Your task to perform on an android device: check data usage Image 0: 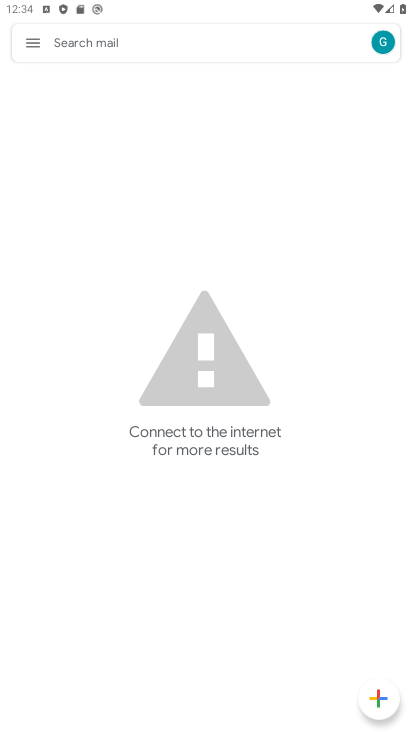
Step 0: press home button
Your task to perform on an android device: check data usage Image 1: 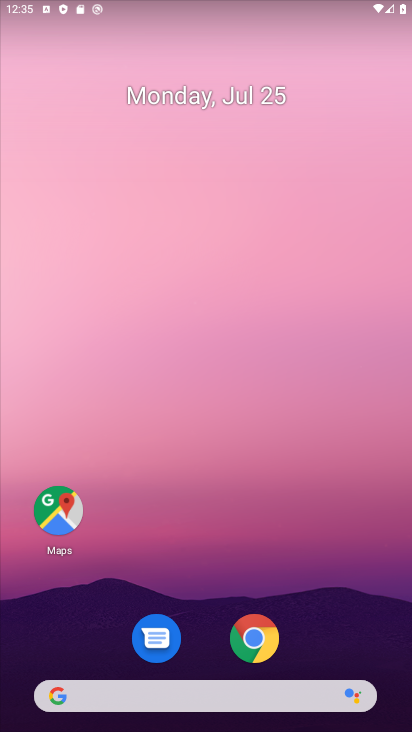
Step 1: drag from (211, 664) to (107, 113)
Your task to perform on an android device: check data usage Image 2: 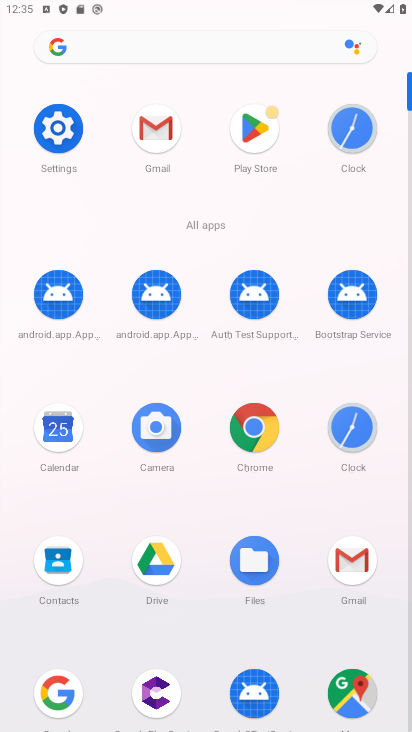
Step 2: click (62, 138)
Your task to perform on an android device: check data usage Image 3: 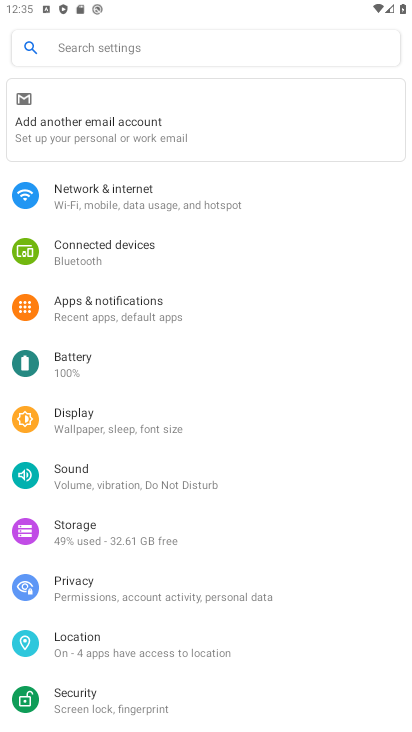
Step 3: click (213, 208)
Your task to perform on an android device: check data usage Image 4: 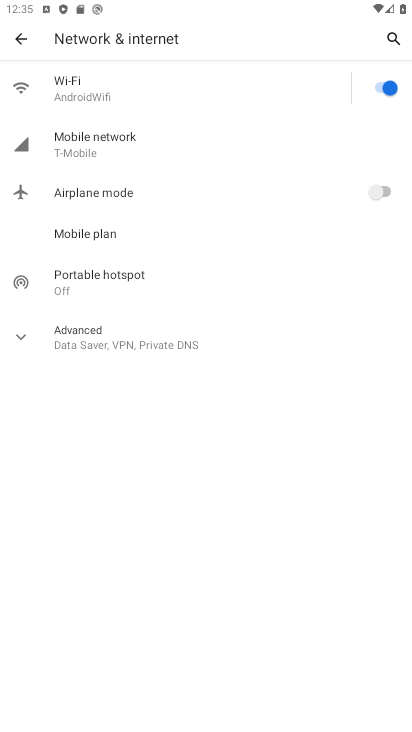
Step 4: click (148, 166)
Your task to perform on an android device: check data usage Image 5: 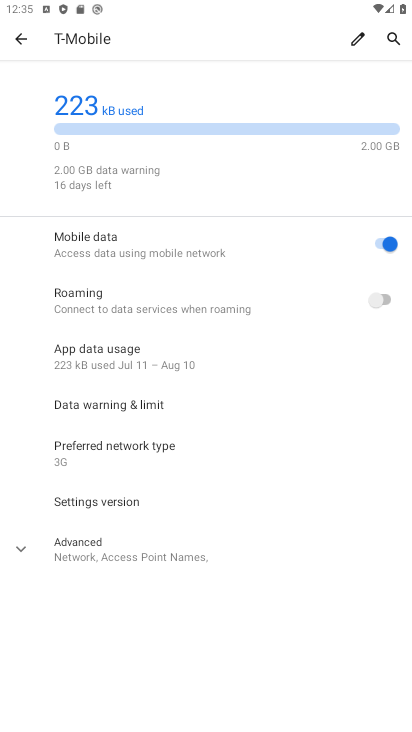
Step 5: task complete